Your task to perform on an android device: Open calendar and show me the first week of next month Image 0: 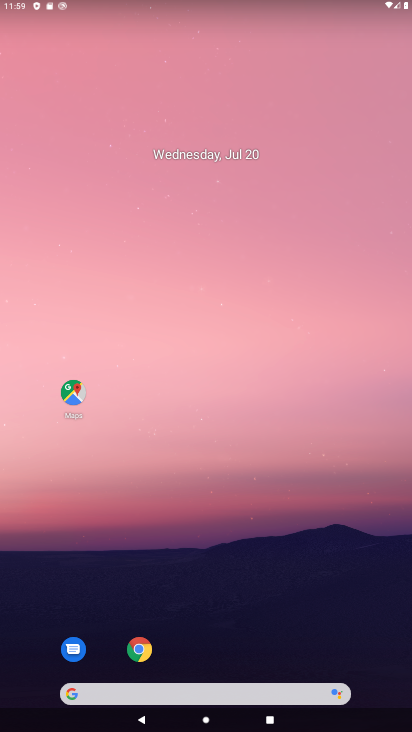
Step 0: drag from (290, 665) to (222, 20)
Your task to perform on an android device: Open calendar and show me the first week of next month Image 1: 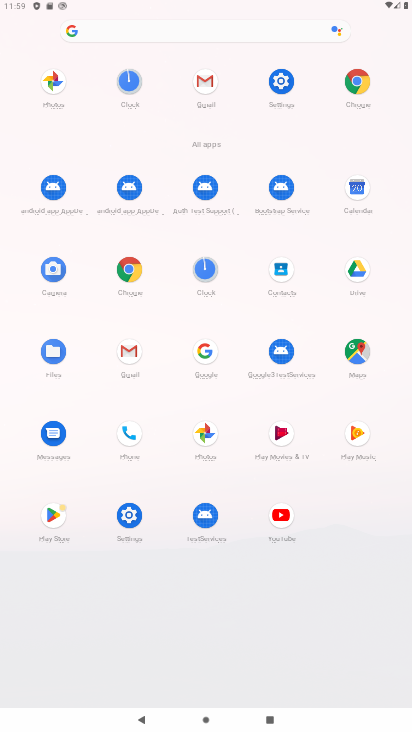
Step 1: click (353, 205)
Your task to perform on an android device: Open calendar and show me the first week of next month Image 2: 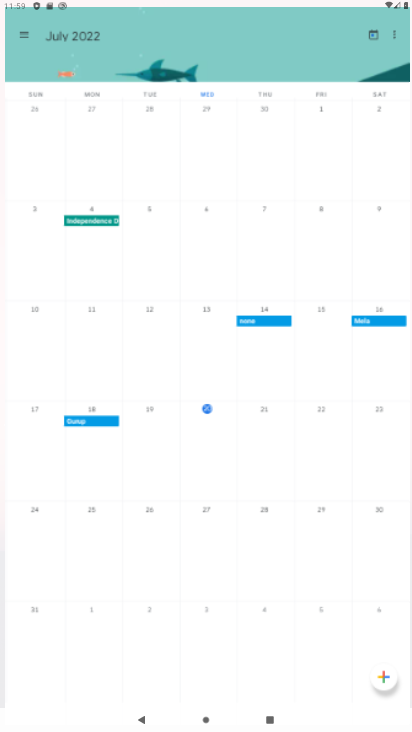
Step 2: task complete